Your task to perform on an android device: turn on javascript in the chrome app Image 0: 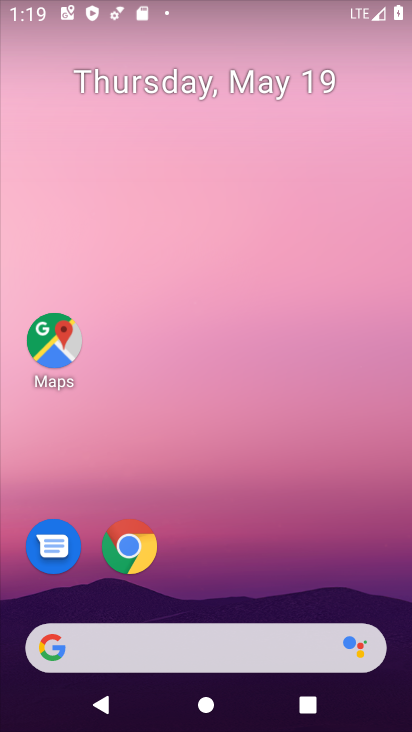
Step 0: click (137, 554)
Your task to perform on an android device: turn on javascript in the chrome app Image 1: 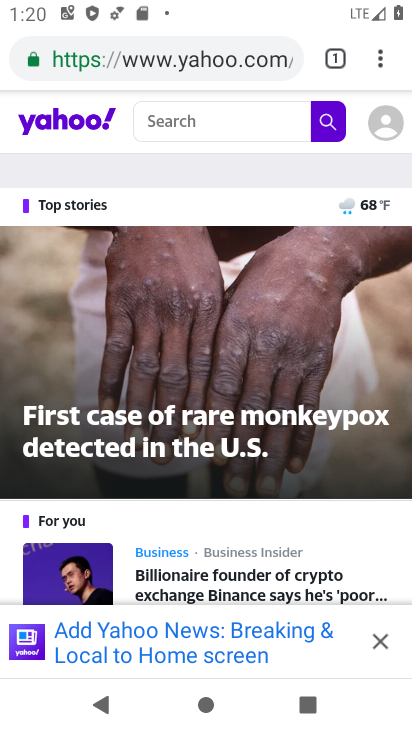
Step 1: click (375, 50)
Your task to perform on an android device: turn on javascript in the chrome app Image 2: 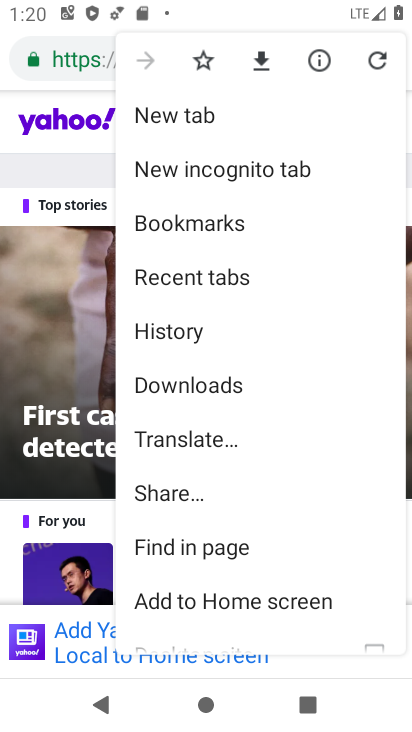
Step 2: drag from (173, 514) to (213, 150)
Your task to perform on an android device: turn on javascript in the chrome app Image 3: 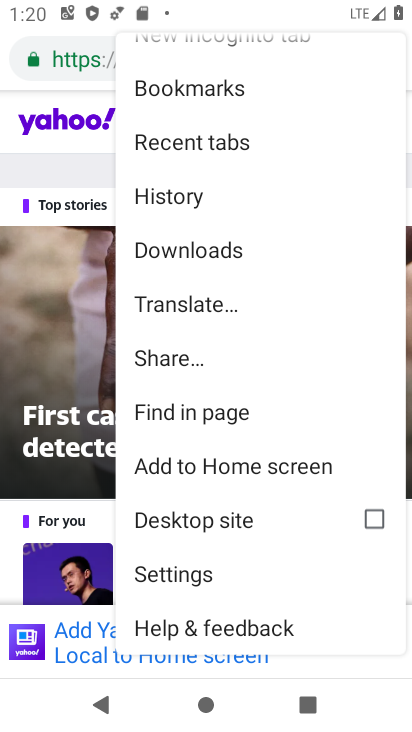
Step 3: click (185, 581)
Your task to perform on an android device: turn on javascript in the chrome app Image 4: 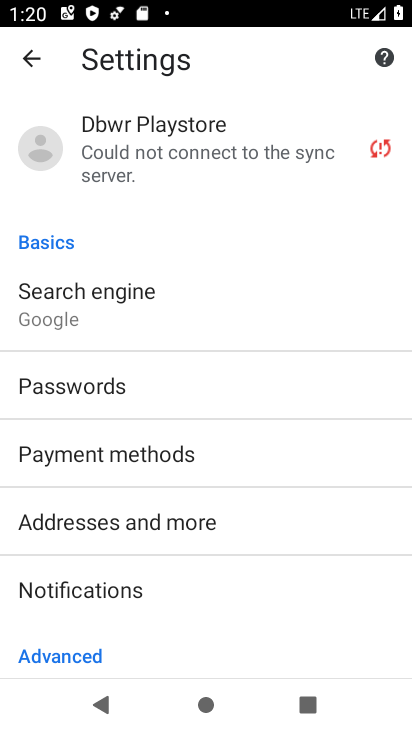
Step 4: drag from (98, 602) to (198, 152)
Your task to perform on an android device: turn on javascript in the chrome app Image 5: 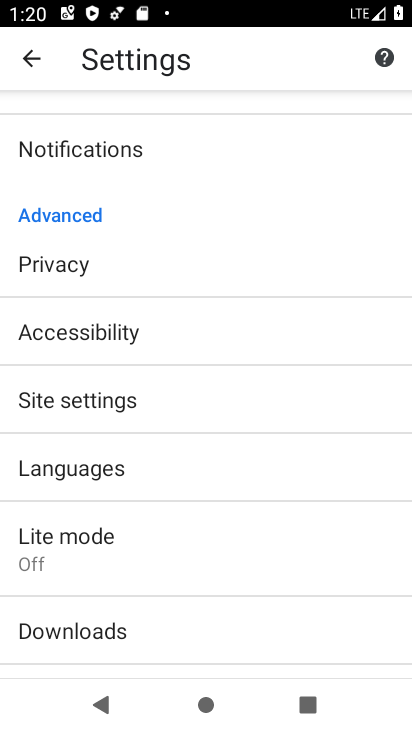
Step 5: drag from (168, 636) to (253, 244)
Your task to perform on an android device: turn on javascript in the chrome app Image 6: 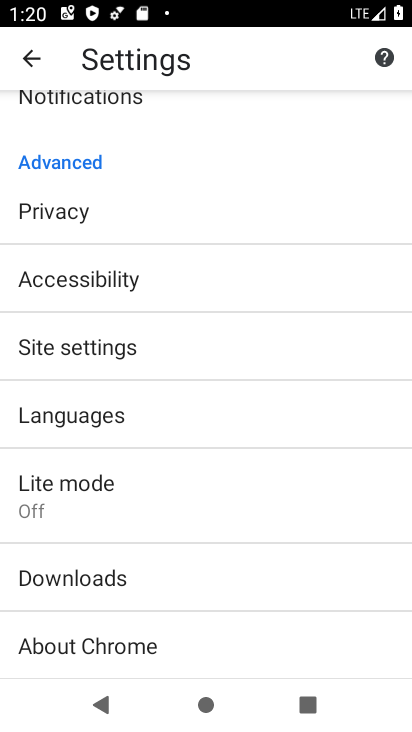
Step 6: click (177, 358)
Your task to perform on an android device: turn on javascript in the chrome app Image 7: 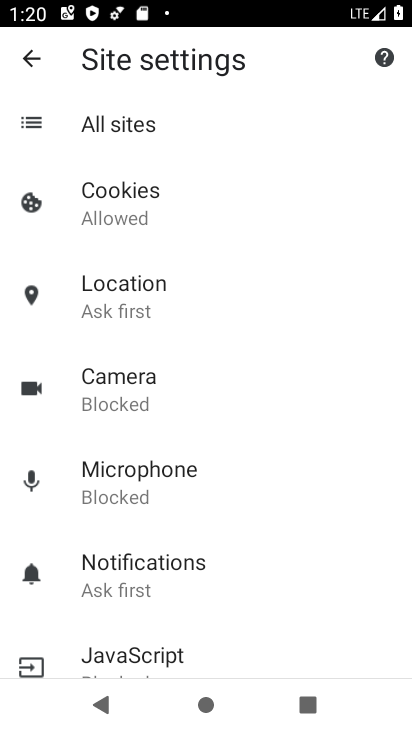
Step 7: click (100, 647)
Your task to perform on an android device: turn on javascript in the chrome app Image 8: 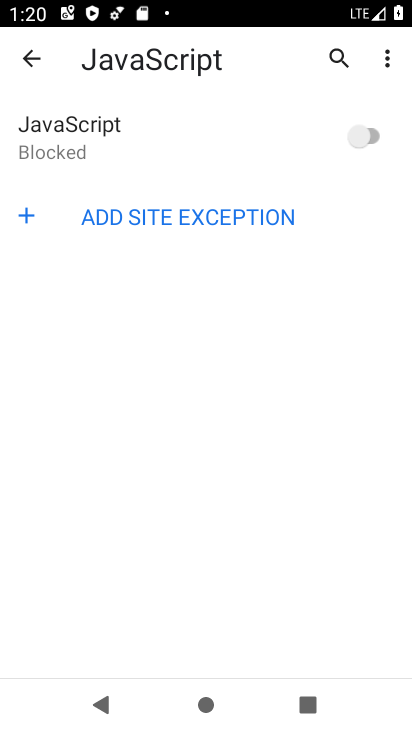
Step 8: click (377, 132)
Your task to perform on an android device: turn on javascript in the chrome app Image 9: 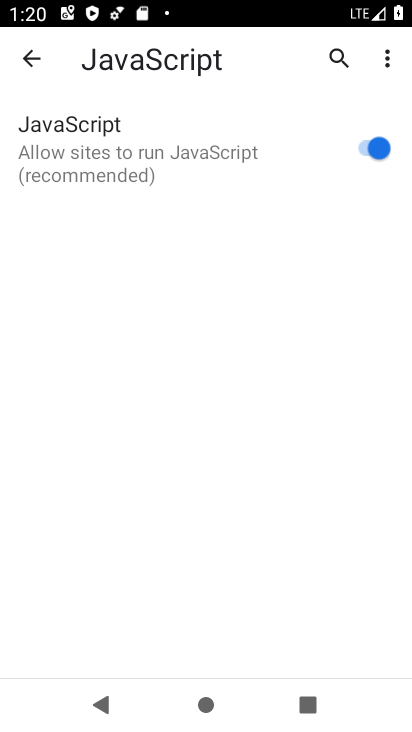
Step 9: task complete